Your task to perform on an android device: turn off airplane mode Image 0: 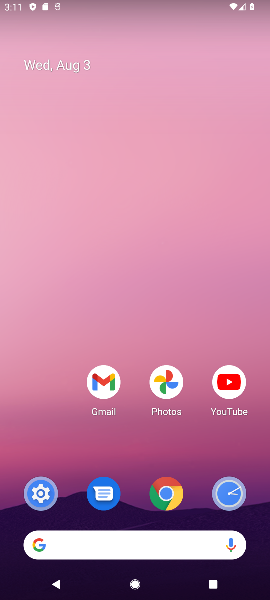
Step 0: drag from (128, 496) to (152, 136)
Your task to perform on an android device: turn off airplane mode Image 1: 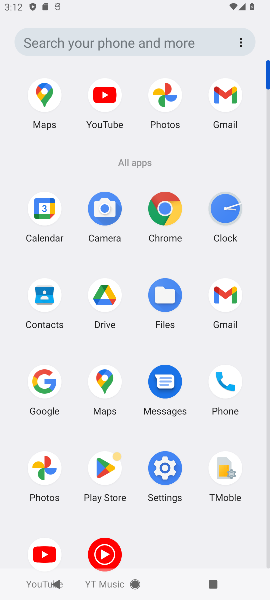
Step 1: click (184, 474)
Your task to perform on an android device: turn off airplane mode Image 2: 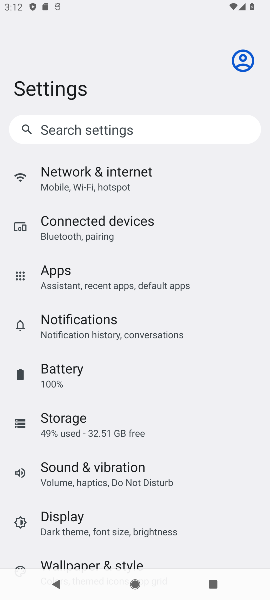
Step 2: click (134, 182)
Your task to perform on an android device: turn off airplane mode Image 3: 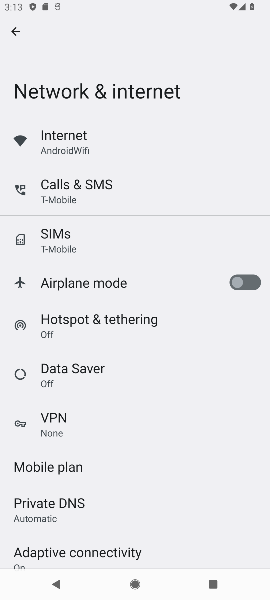
Step 3: task complete